Your task to perform on an android device: Go to privacy settings Image 0: 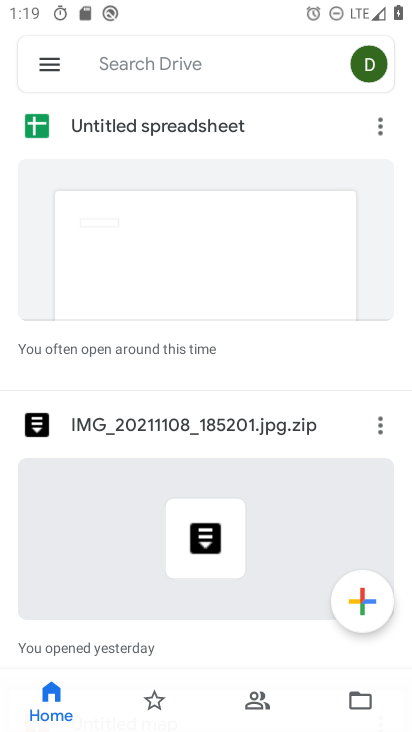
Step 0: press home button
Your task to perform on an android device: Go to privacy settings Image 1: 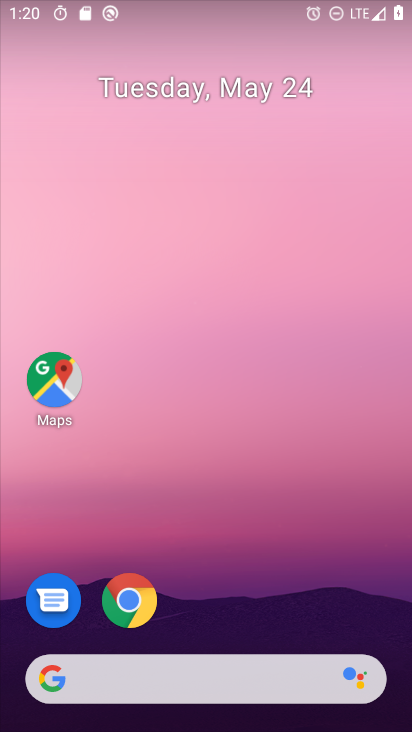
Step 1: drag from (228, 609) to (271, 149)
Your task to perform on an android device: Go to privacy settings Image 2: 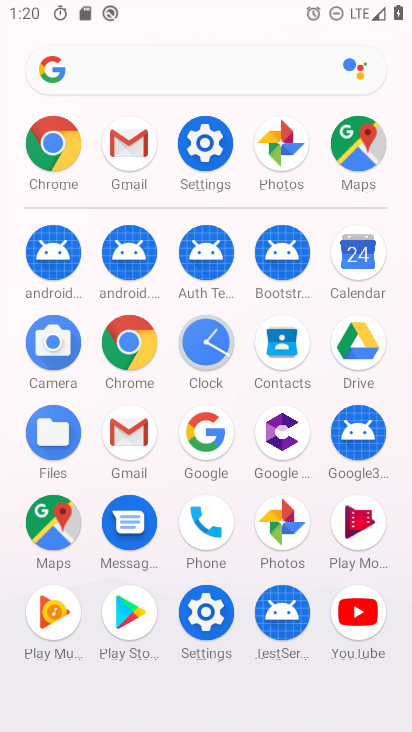
Step 2: click (210, 143)
Your task to perform on an android device: Go to privacy settings Image 3: 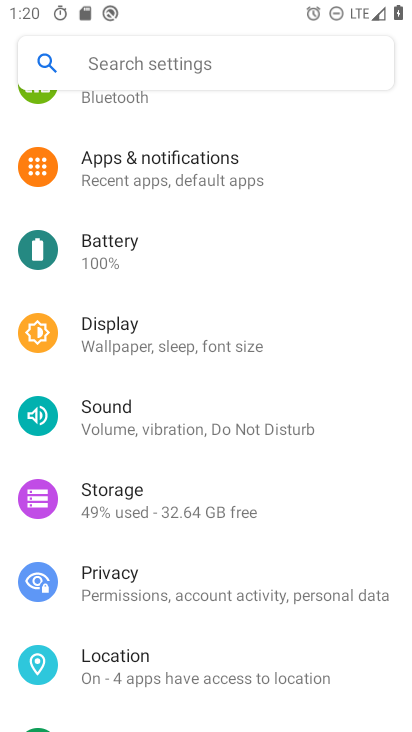
Step 3: drag from (202, 467) to (240, 140)
Your task to perform on an android device: Go to privacy settings Image 4: 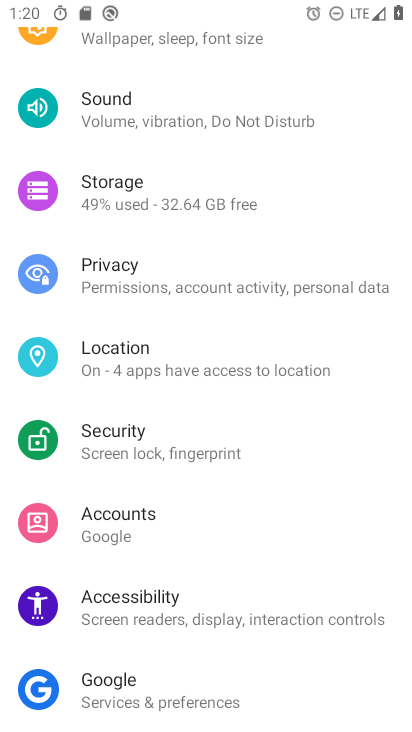
Step 4: click (161, 280)
Your task to perform on an android device: Go to privacy settings Image 5: 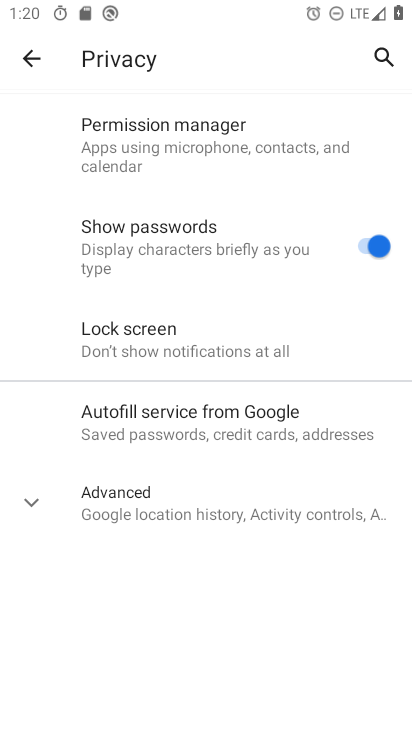
Step 5: task complete